Your task to perform on an android device: Open Google Maps and go to "Timeline" Image 0: 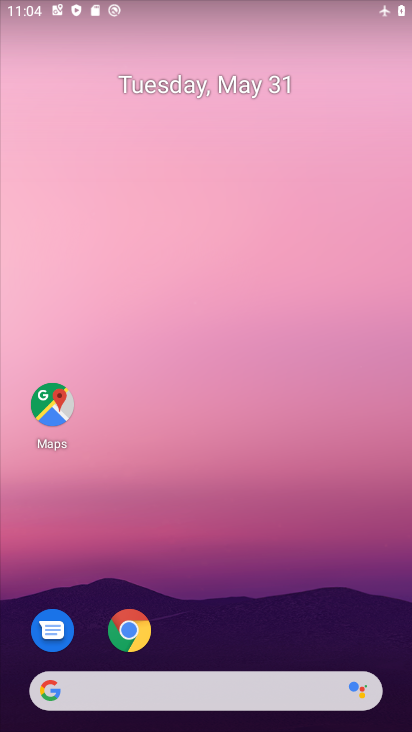
Step 0: drag from (221, 653) to (233, 171)
Your task to perform on an android device: Open Google Maps and go to "Timeline" Image 1: 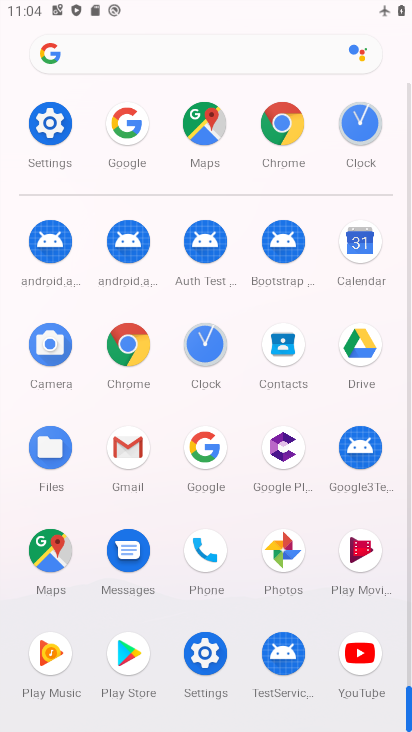
Step 1: drag from (230, 475) to (215, 251)
Your task to perform on an android device: Open Google Maps and go to "Timeline" Image 2: 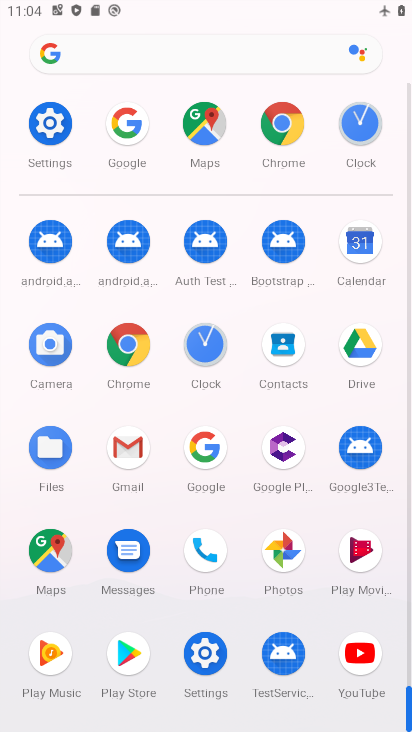
Step 2: click (61, 547)
Your task to perform on an android device: Open Google Maps and go to "Timeline" Image 3: 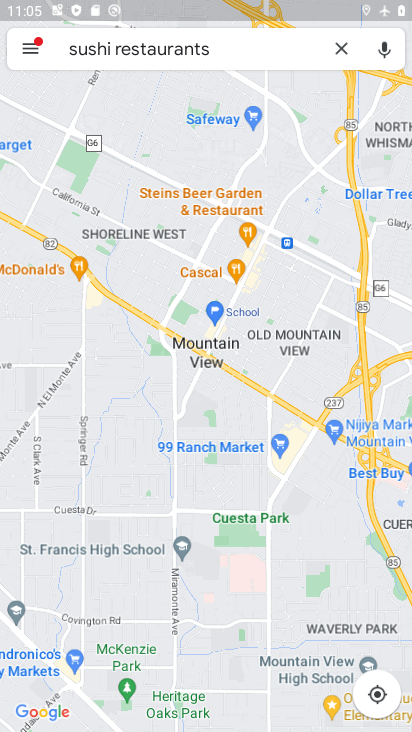
Step 3: click (33, 48)
Your task to perform on an android device: Open Google Maps and go to "Timeline" Image 4: 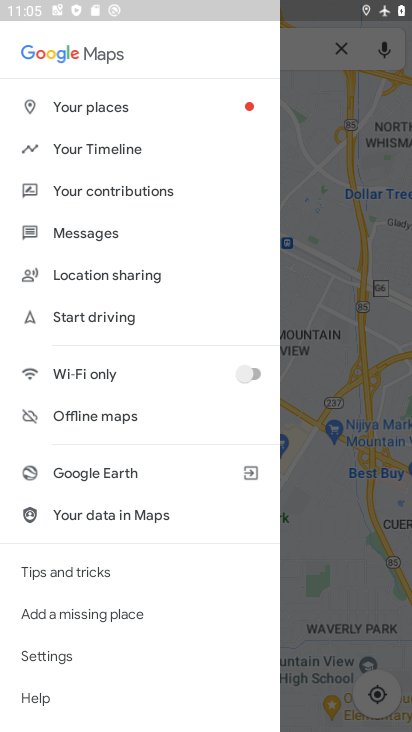
Step 4: click (126, 143)
Your task to perform on an android device: Open Google Maps and go to "Timeline" Image 5: 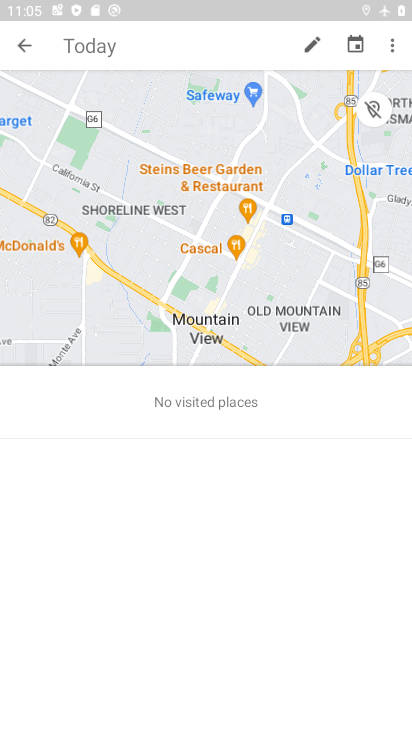
Step 5: task complete